Your task to perform on an android device: Go to notification settings Image 0: 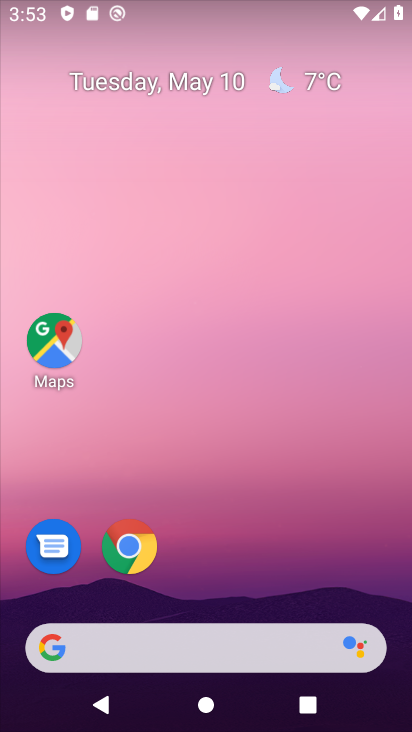
Step 0: drag from (371, 552) to (164, 193)
Your task to perform on an android device: Go to notification settings Image 1: 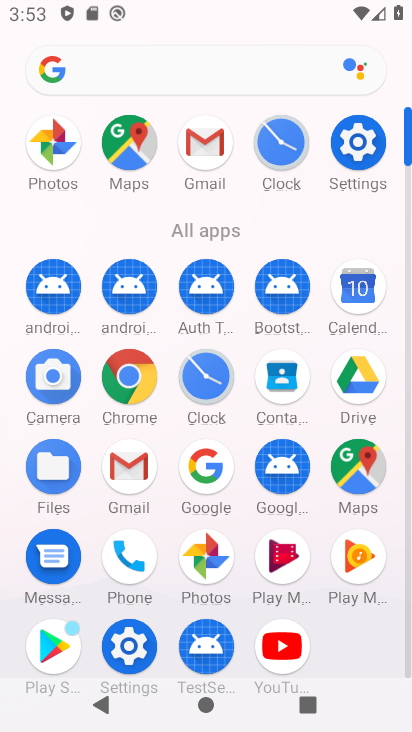
Step 1: click (331, 136)
Your task to perform on an android device: Go to notification settings Image 2: 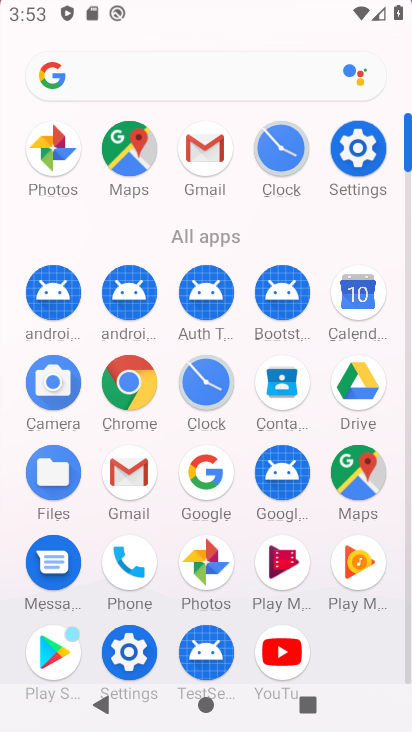
Step 2: click (342, 150)
Your task to perform on an android device: Go to notification settings Image 3: 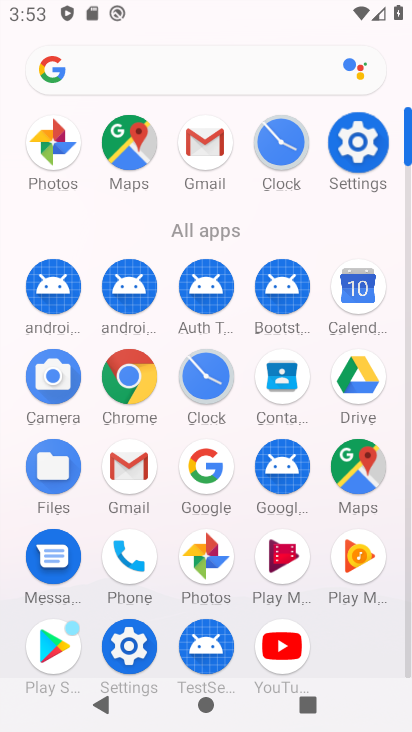
Step 3: click (342, 140)
Your task to perform on an android device: Go to notification settings Image 4: 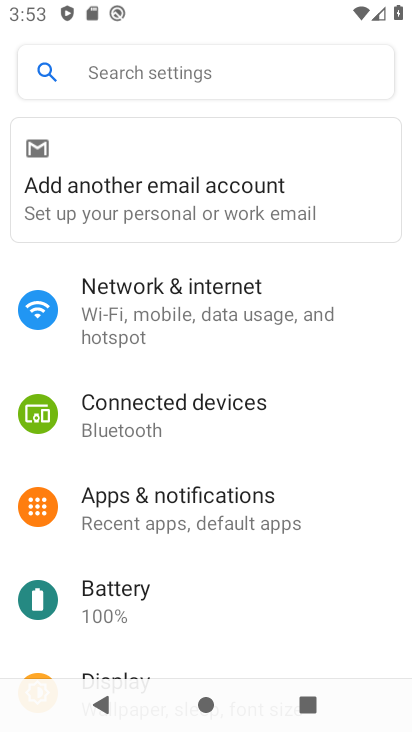
Step 4: click (171, 508)
Your task to perform on an android device: Go to notification settings Image 5: 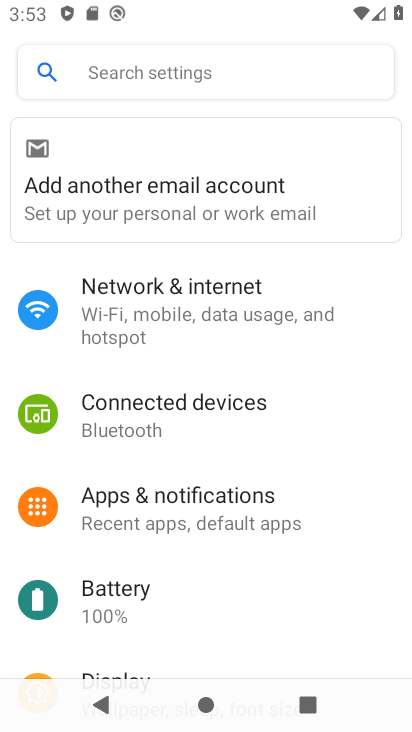
Step 5: click (141, 501)
Your task to perform on an android device: Go to notification settings Image 6: 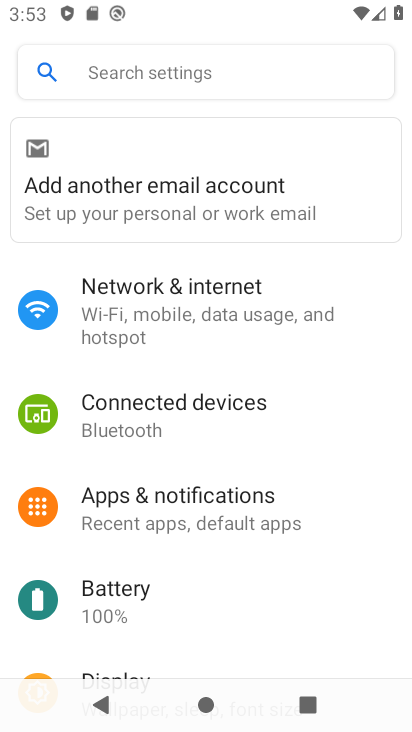
Step 6: click (238, 513)
Your task to perform on an android device: Go to notification settings Image 7: 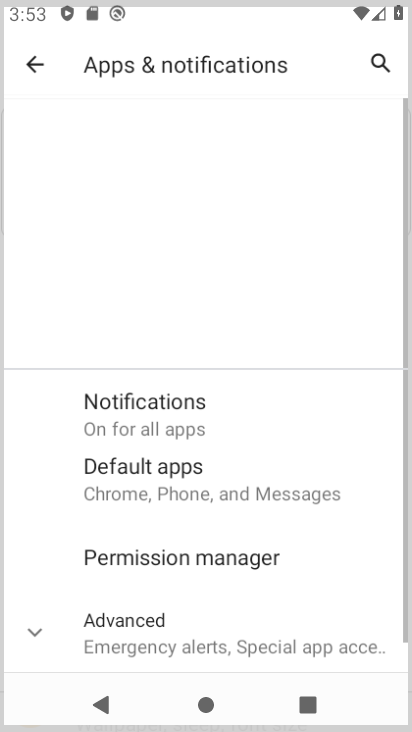
Step 7: click (242, 513)
Your task to perform on an android device: Go to notification settings Image 8: 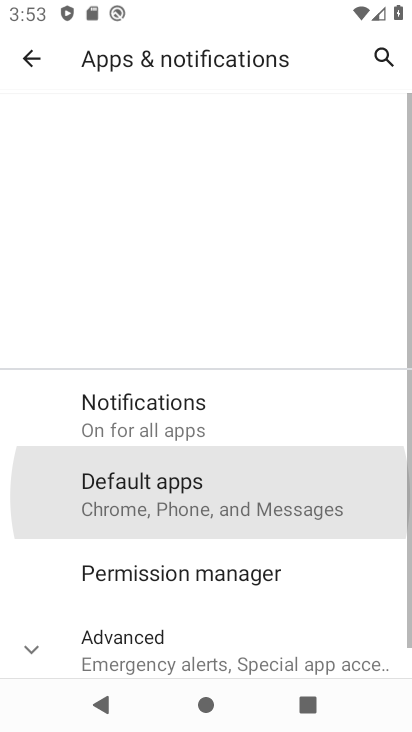
Step 8: click (243, 490)
Your task to perform on an android device: Go to notification settings Image 9: 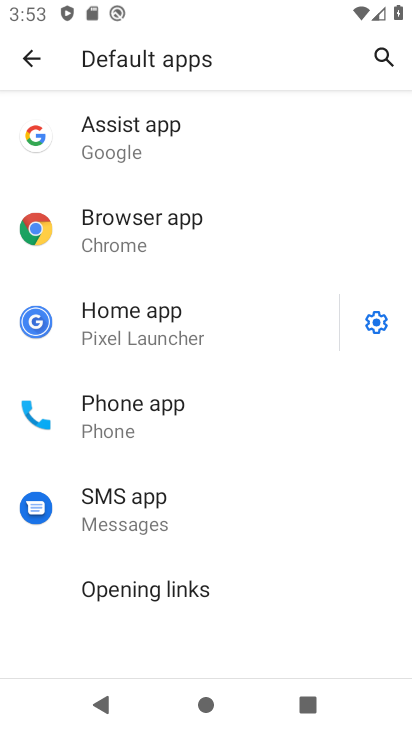
Step 9: click (23, 55)
Your task to perform on an android device: Go to notification settings Image 10: 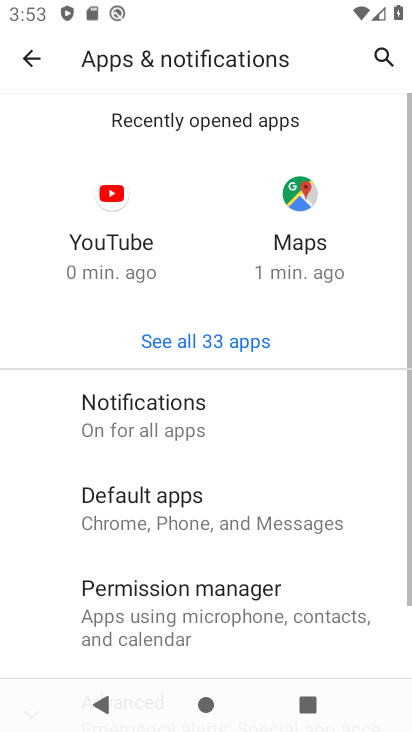
Step 10: click (146, 412)
Your task to perform on an android device: Go to notification settings Image 11: 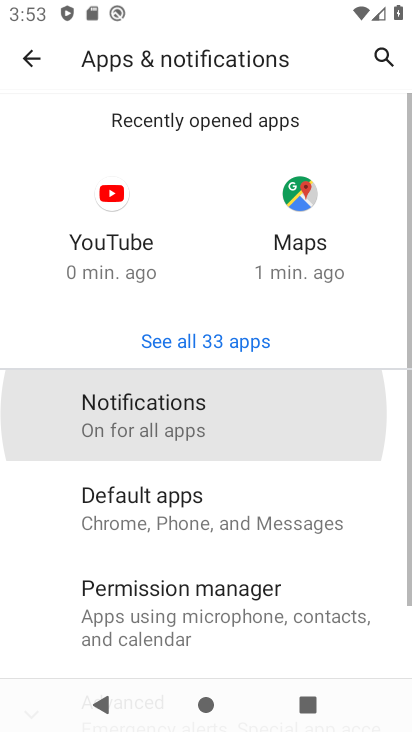
Step 11: click (145, 411)
Your task to perform on an android device: Go to notification settings Image 12: 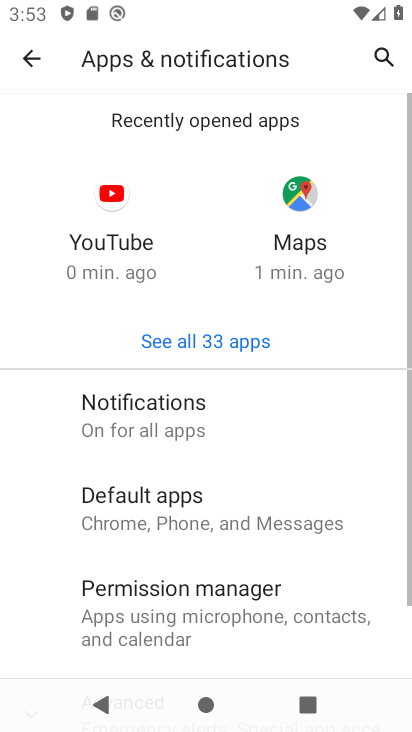
Step 12: click (145, 413)
Your task to perform on an android device: Go to notification settings Image 13: 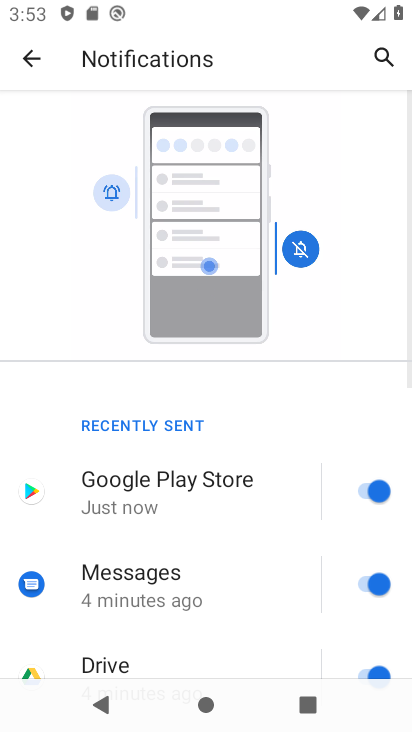
Step 13: task complete